Your task to perform on an android device: Go to privacy settings Image 0: 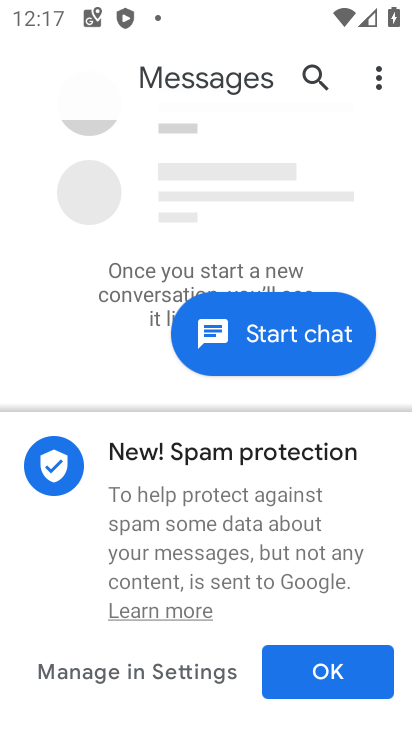
Step 0: press home button
Your task to perform on an android device: Go to privacy settings Image 1: 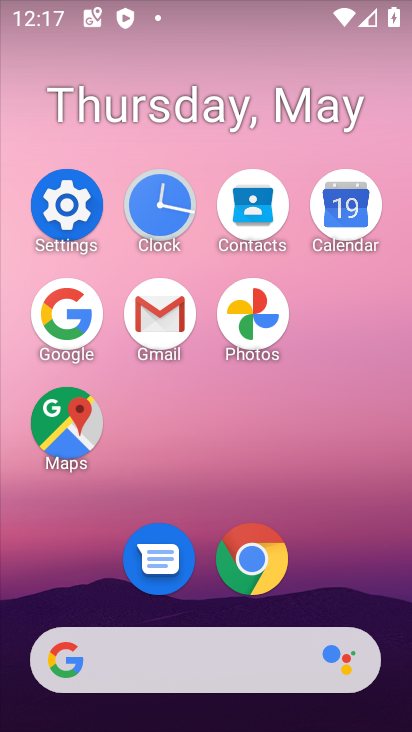
Step 1: click (80, 220)
Your task to perform on an android device: Go to privacy settings Image 2: 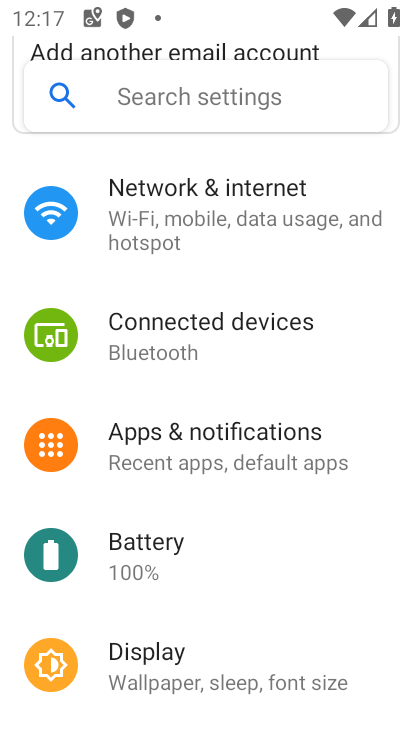
Step 2: drag from (255, 554) to (302, 84)
Your task to perform on an android device: Go to privacy settings Image 3: 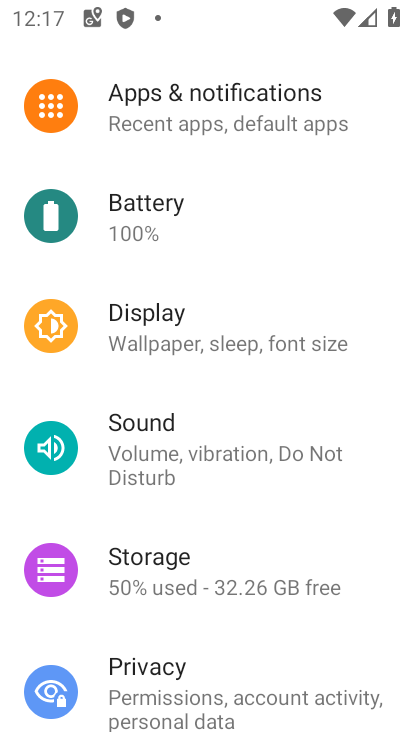
Step 3: click (216, 704)
Your task to perform on an android device: Go to privacy settings Image 4: 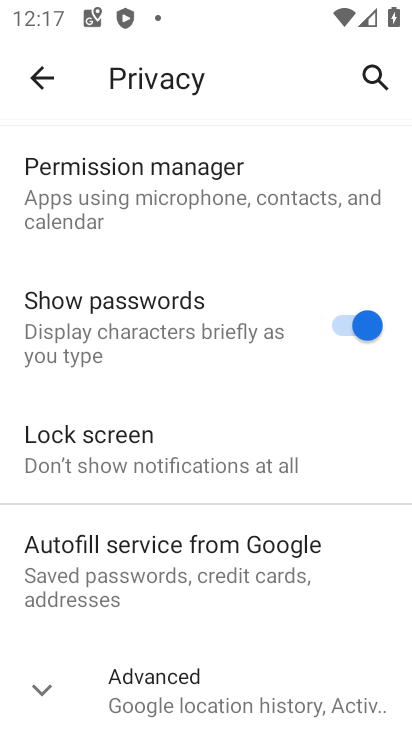
Step 4: task complete